Your task to perform on an android device: Empty the shopping cart on walmart.com. Image 0: 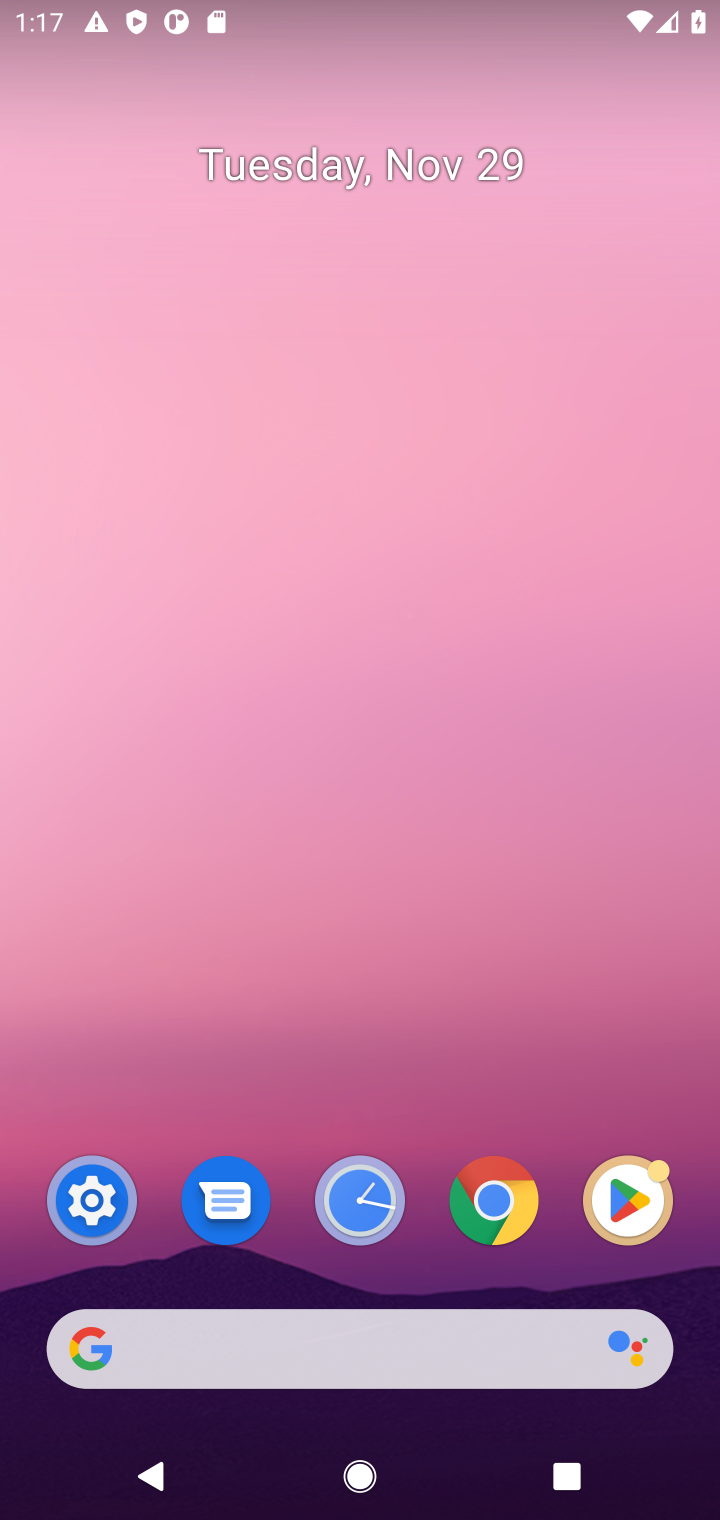
Step 0: click (188, 1370)
Your task to perform on an android device: Empty the shopping cart on walmart.com. Image 1: 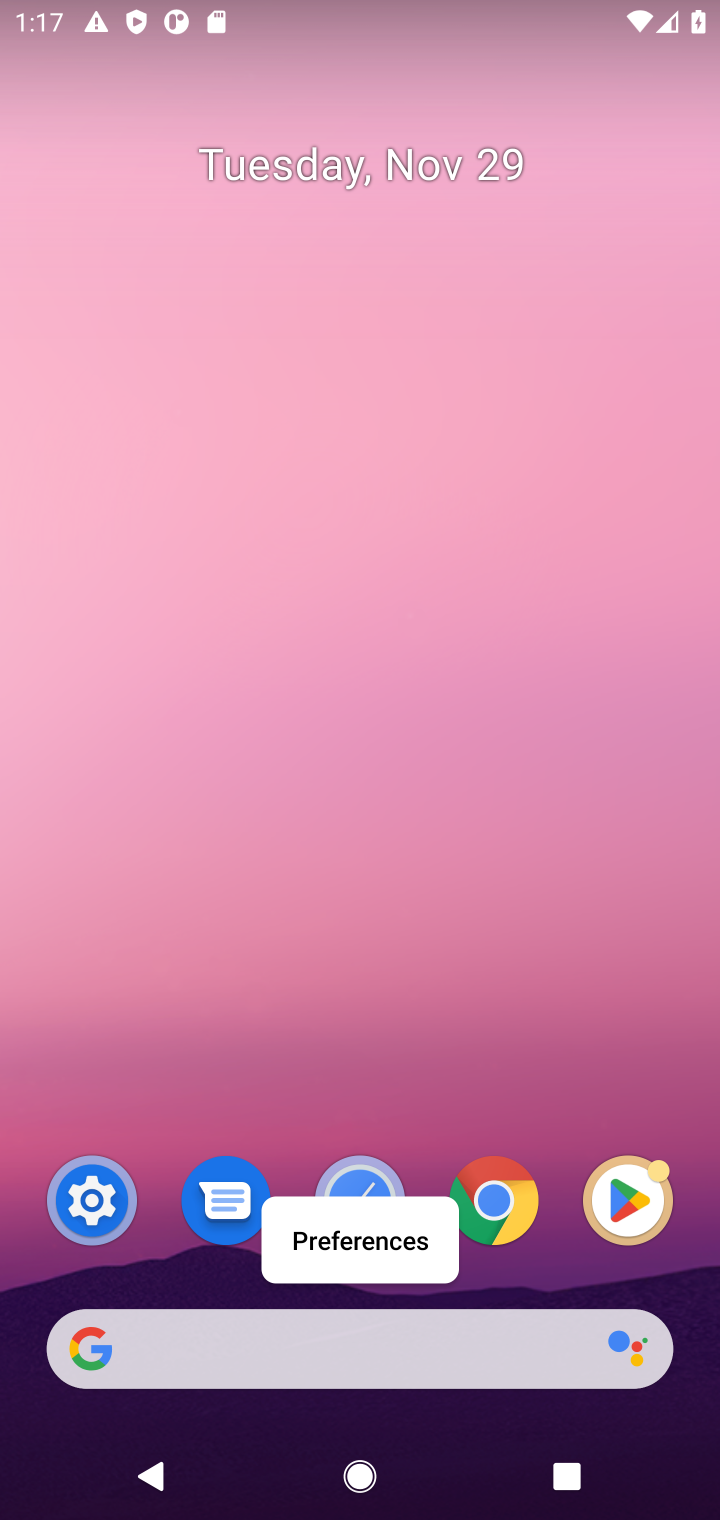
Step 1: type "walmart"
Your task to perform on an android device: Empty the shopping cart on walmart.com. Image 2: 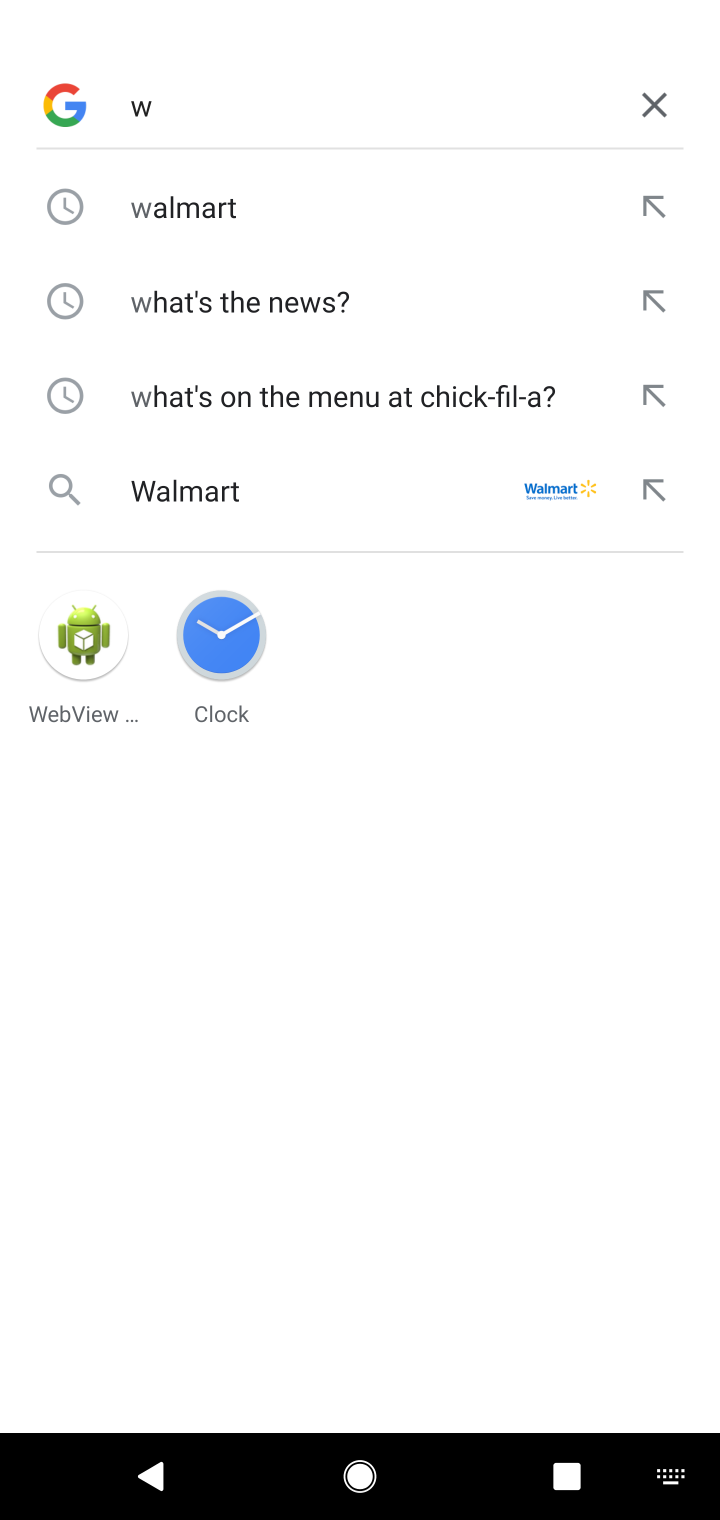
Step 2: click (279, 224)
Your task to perform on an android device: Empty the shopping cart on walmart.com. Image 3: 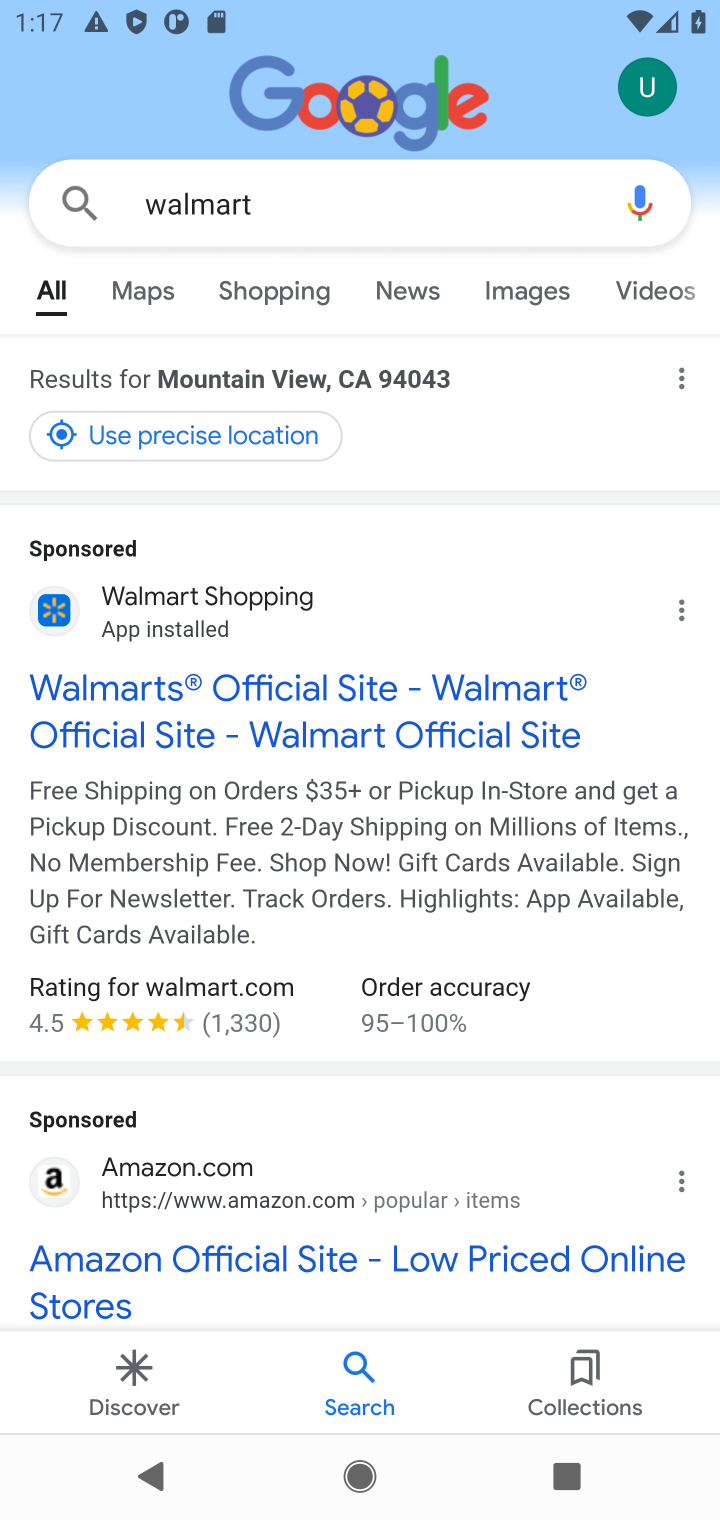
Step 3: click (335, 755)
Your task to perform on an android device: Empty the shopping cart on walmart.com. Image 4: 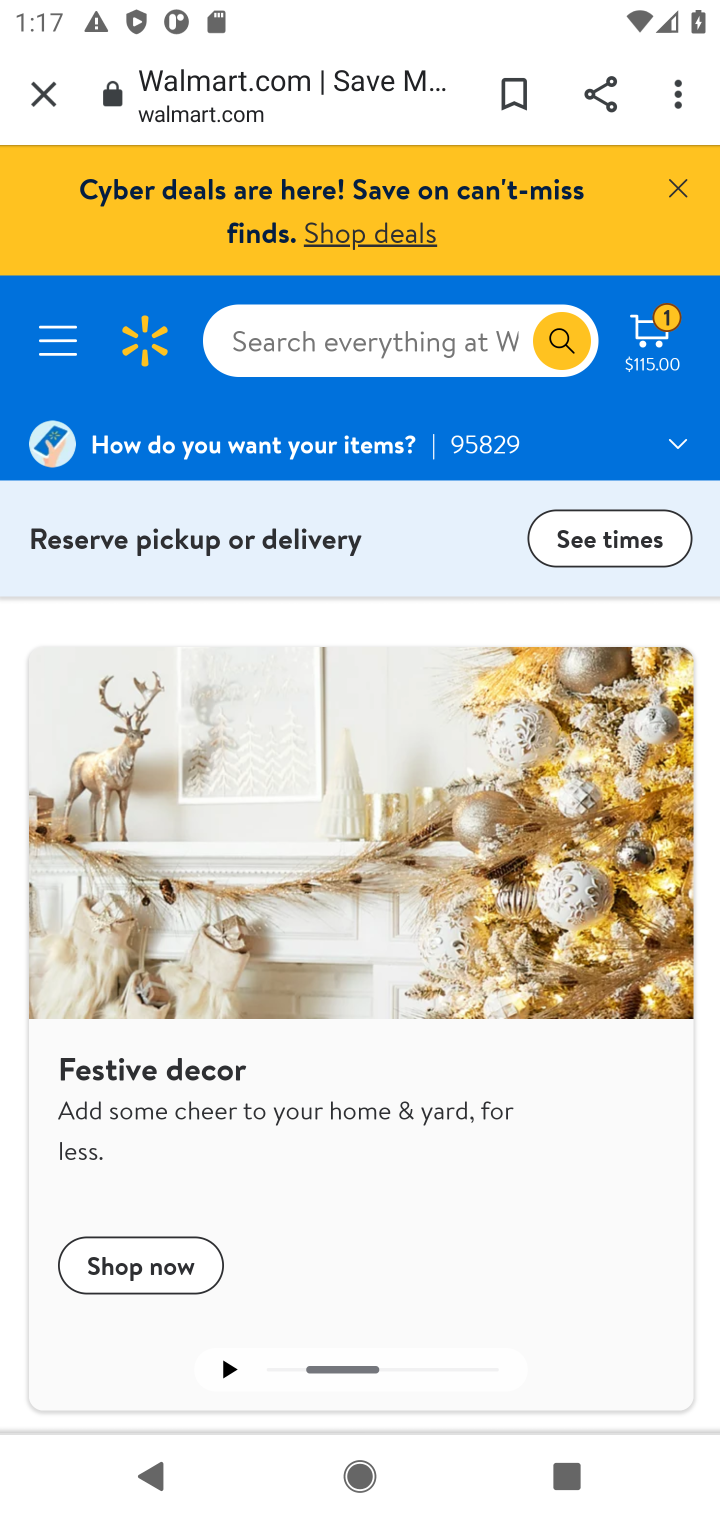
Step 4: click (387, 357)
Your task to perform on an android device: Empty the shopping cart on walmart.com. Image 5: 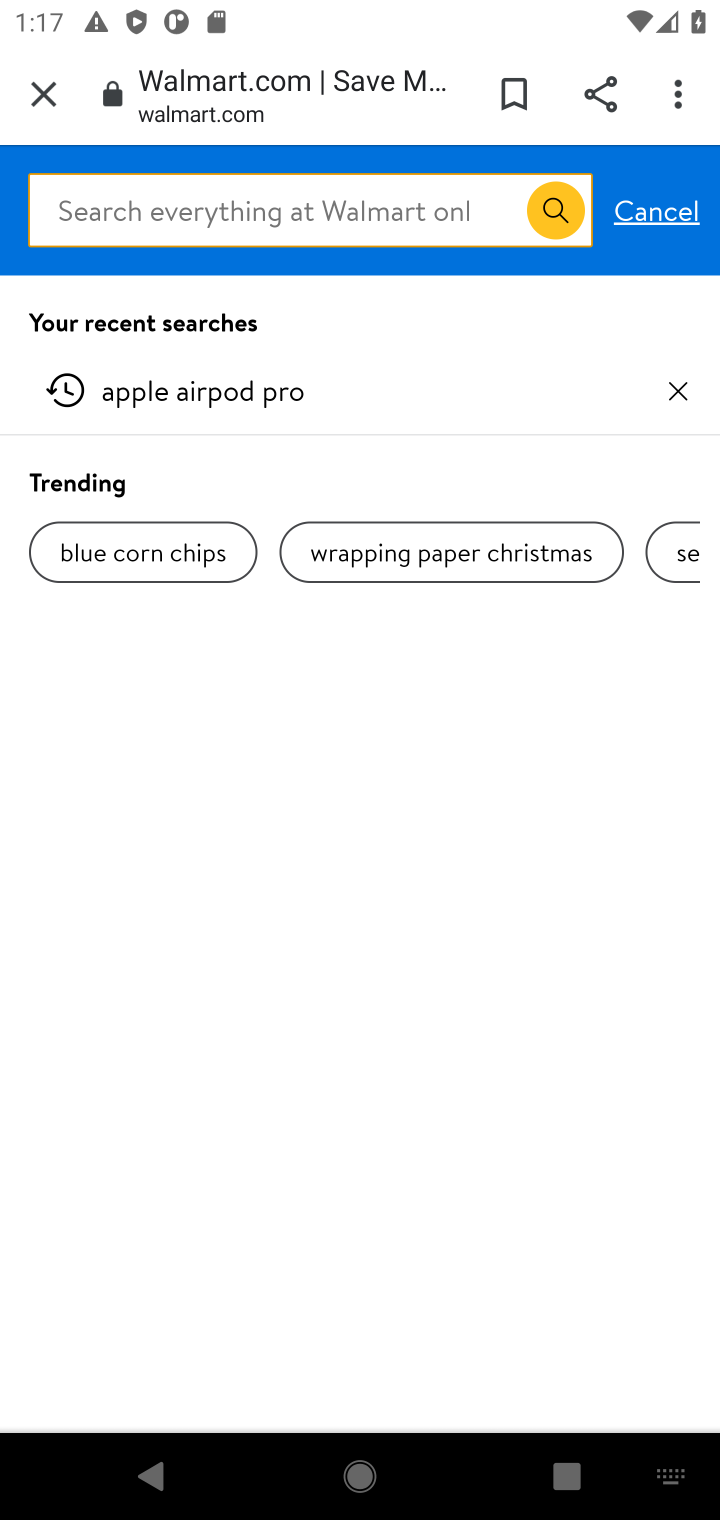
Step 5: click (655, 403)
Your task to perform on an android device: Empty the shopping cart on walmart.com. Image 6: 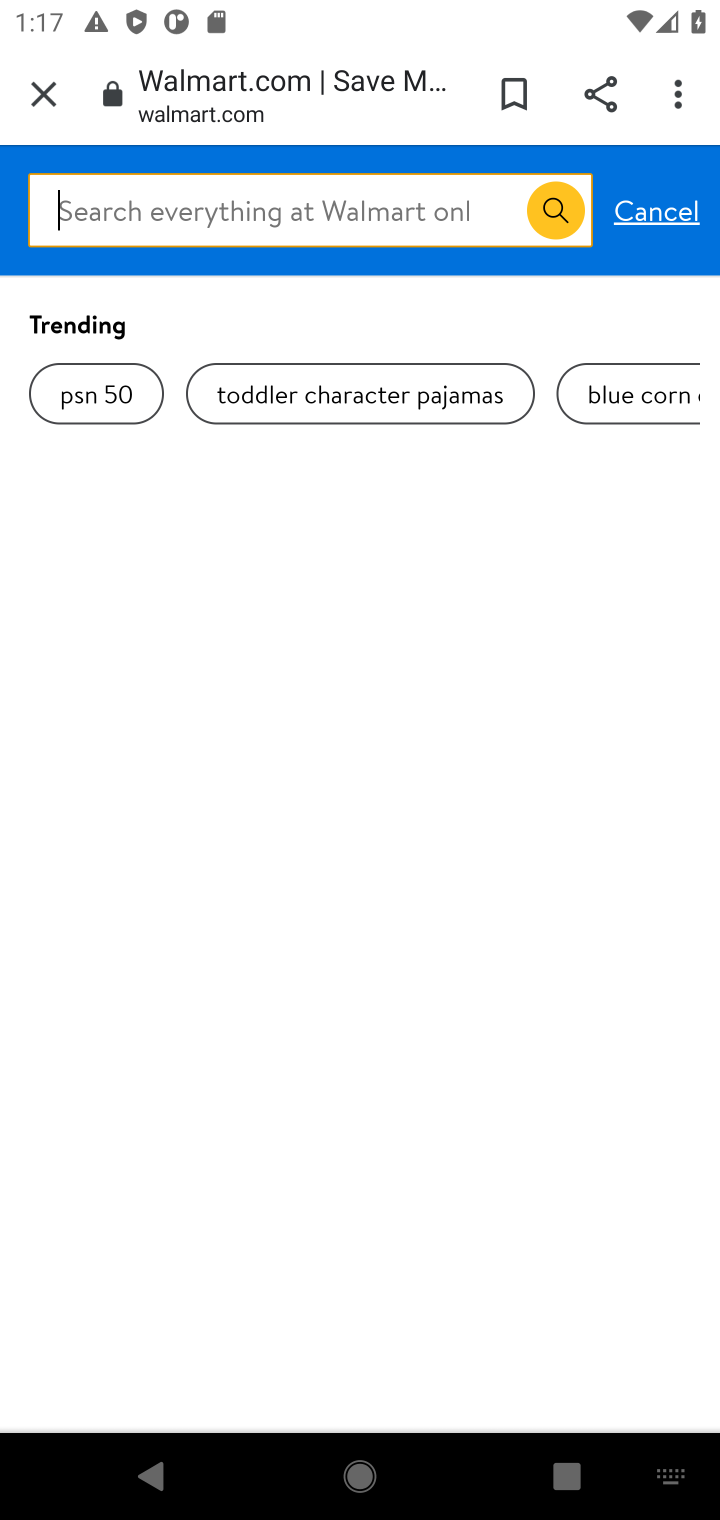
Step 6: click (641, 211)
Your task to perform on an android device: Empty the shopping cart on walmart.com. Image 7: 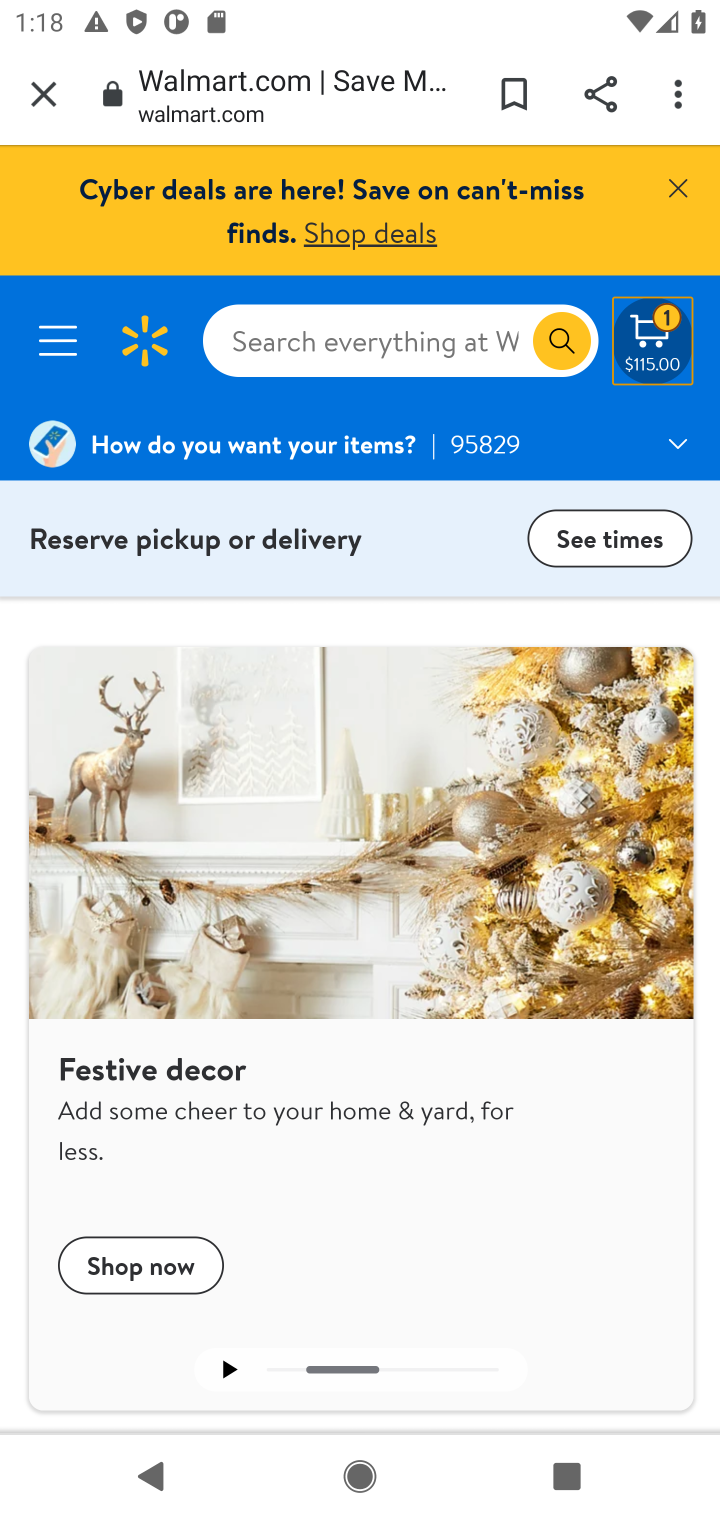
Step 7: click (652, 358)
Your task to perform on an android device: Empty the shopping cart on walmart.com. Image 8: 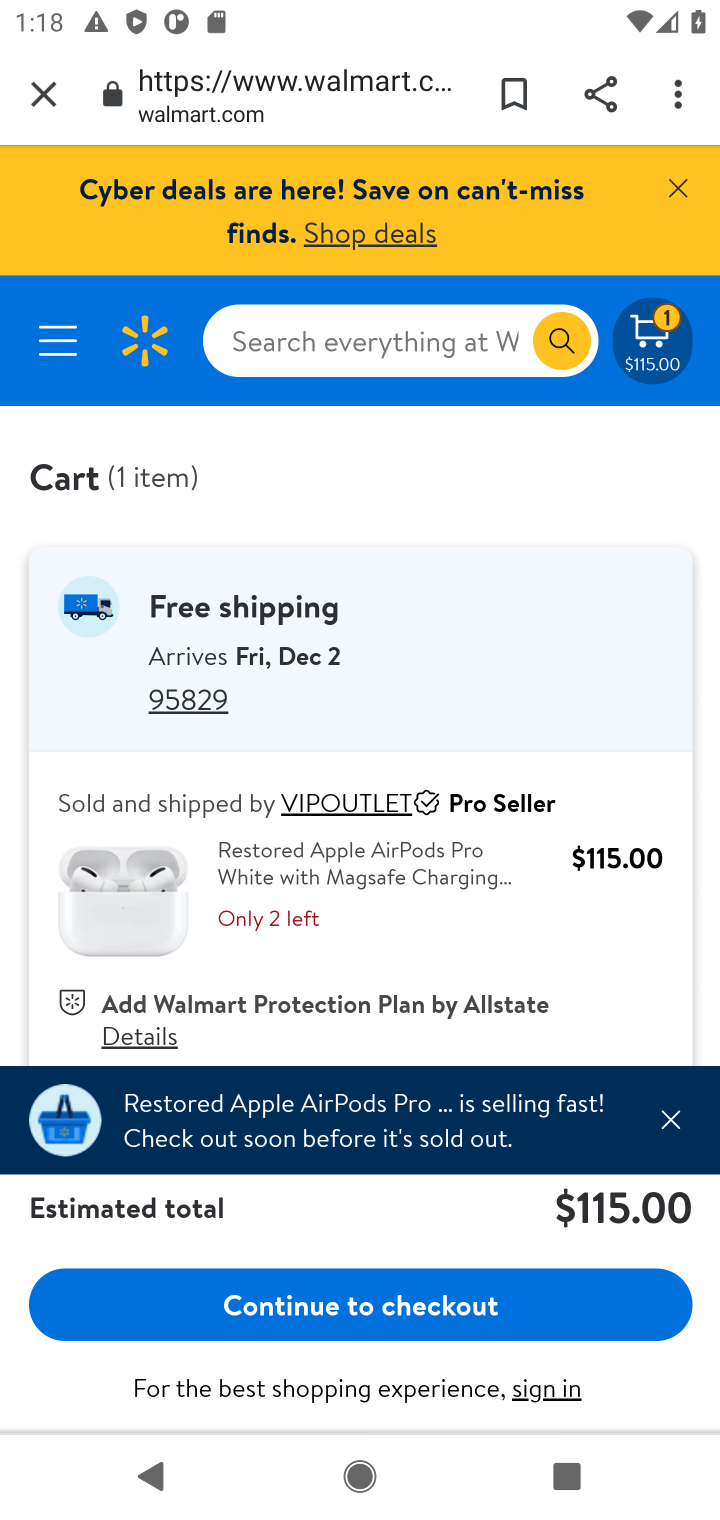
Step 8: click (636, 1127)
Your task to perform on an android device: Empty the shopping cart on walmart.com. Image 9: 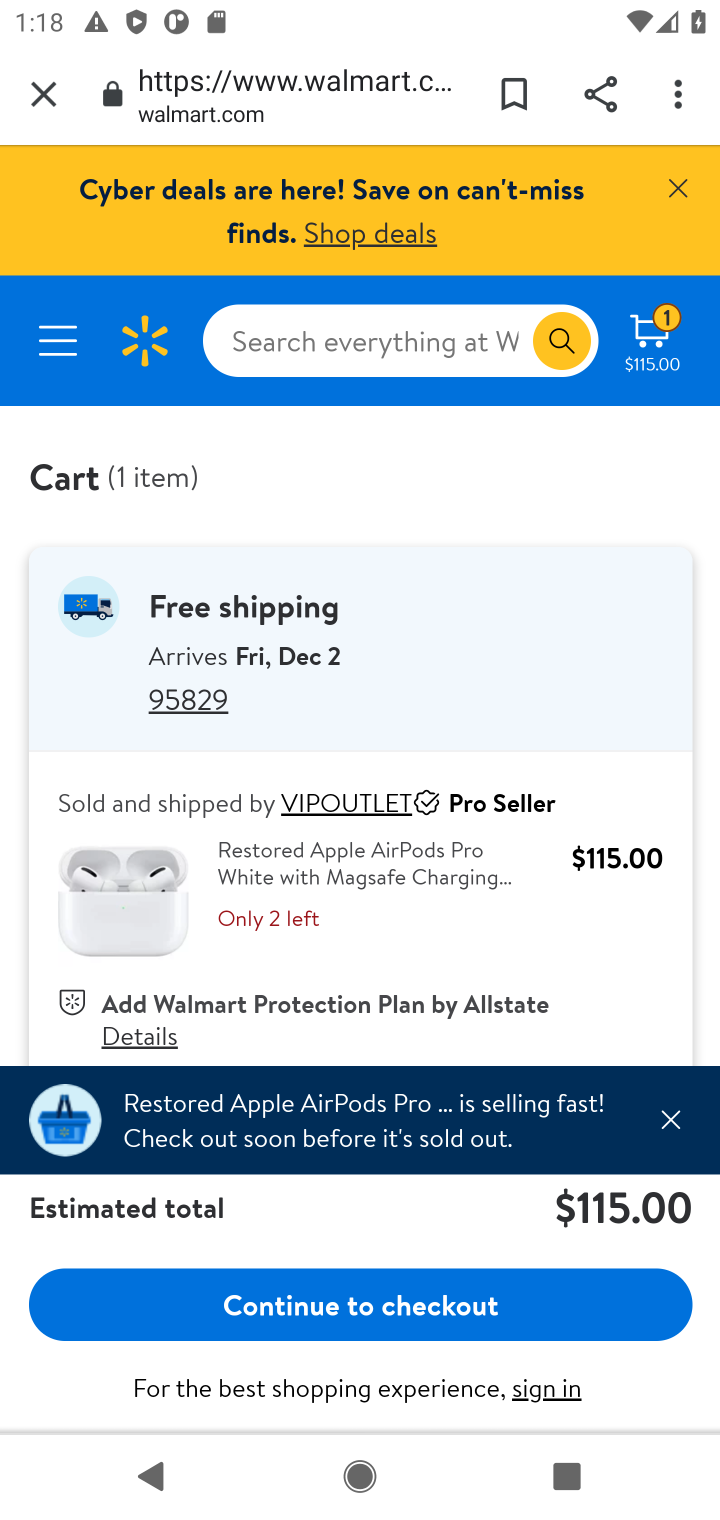
Step 9: click (674, 1127)
Your task to perform on an android device: Empty the shopping cart on walmart.com. Image 10: 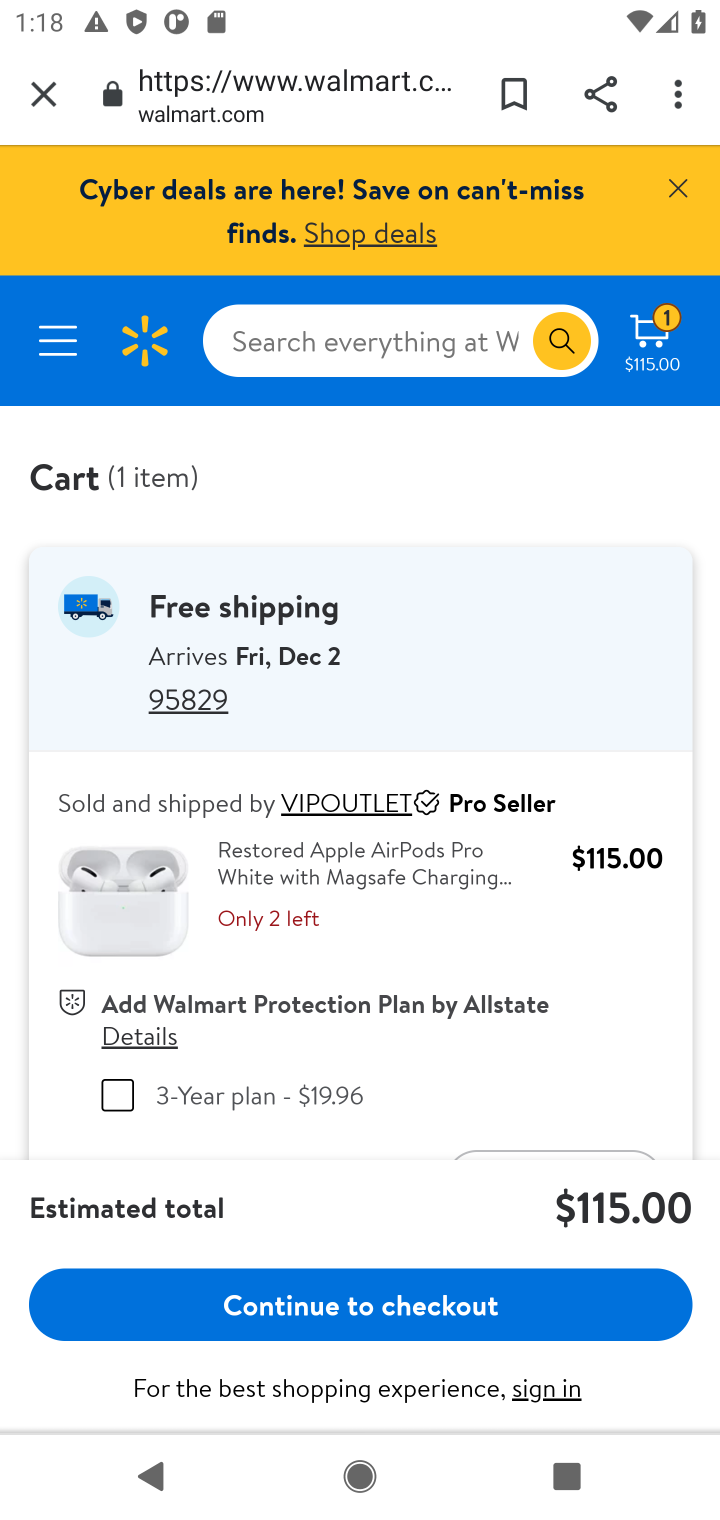
Step 10: task complete